Your task to perform on an android device: turn off javascript in the chrome app Image 0: 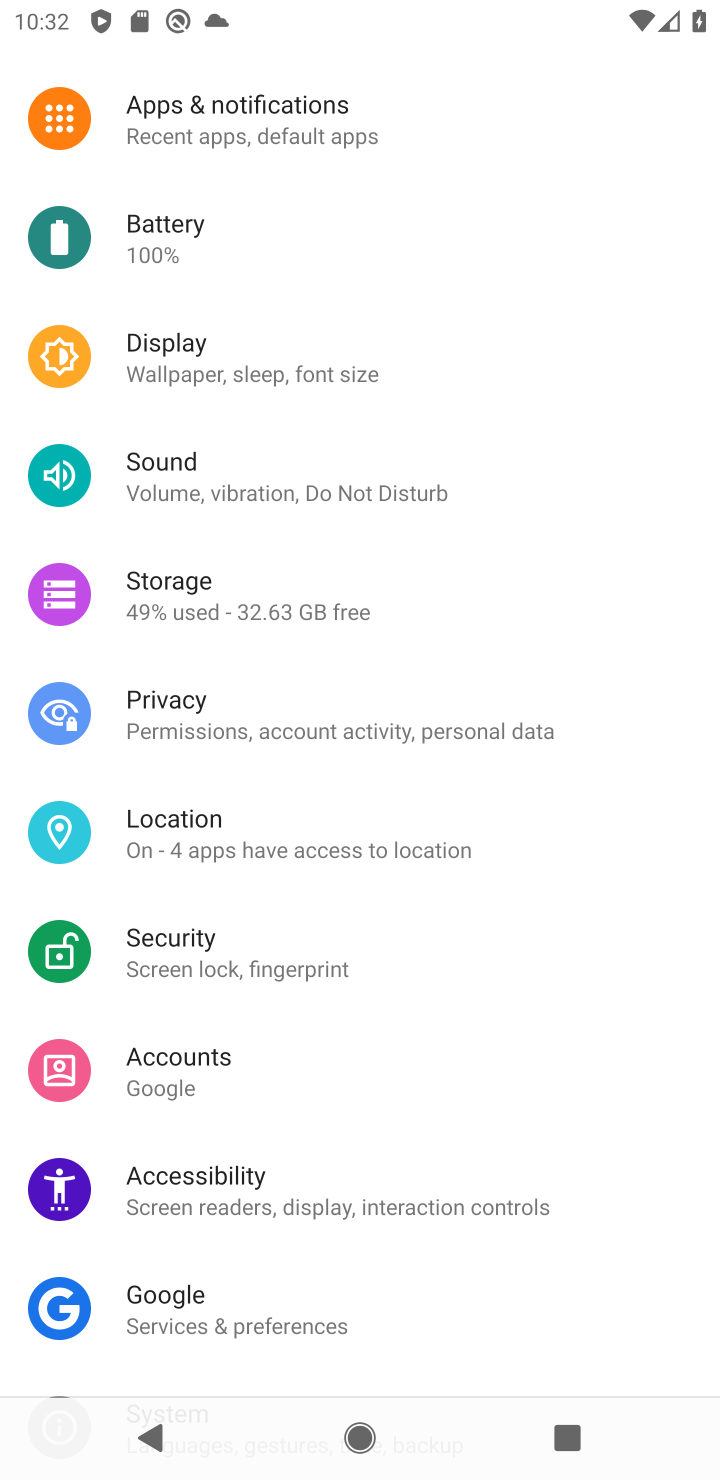
Step 0: press home button
Your task to perform on an android device: turn off javascript in the chrome app Image 1: 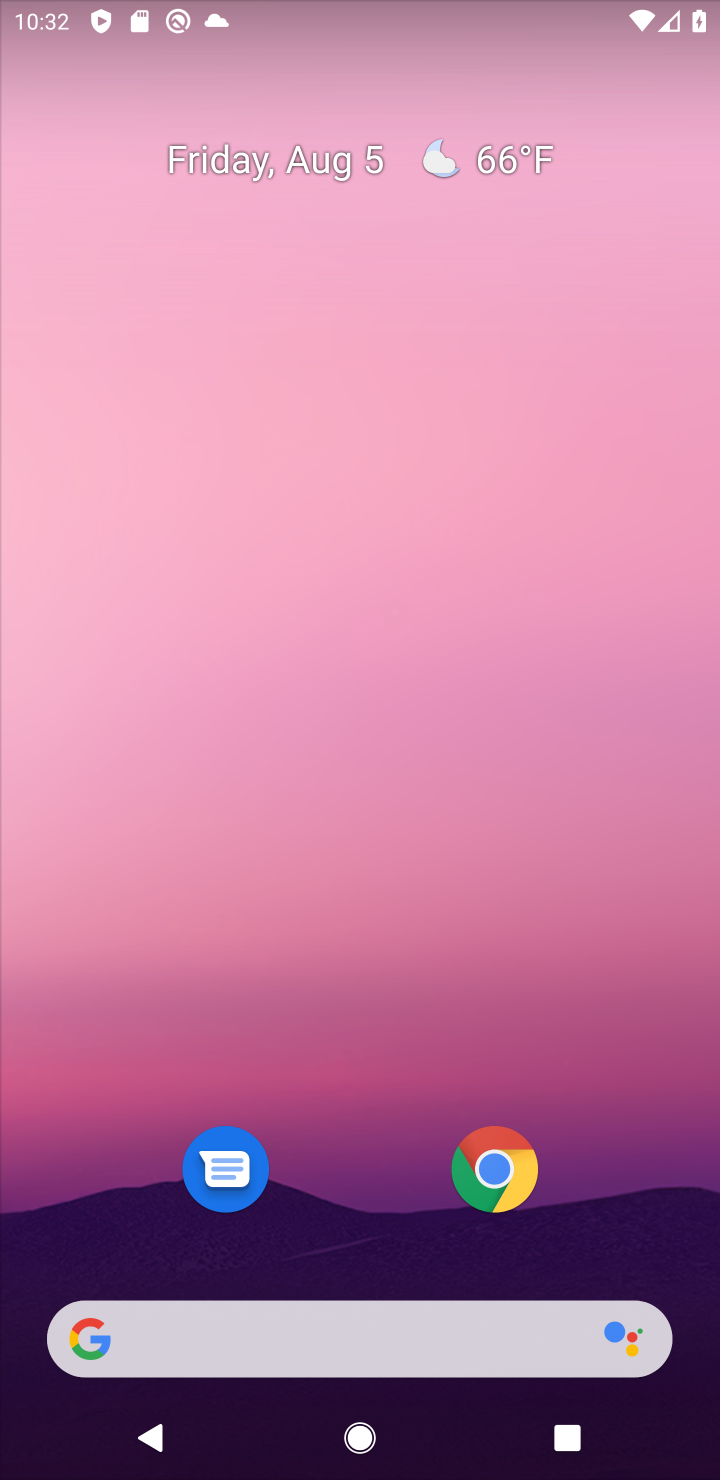
Step 1: click (499, 1172)
Your task to perform on an android device: turn off javascript in the chrome app Image 2: 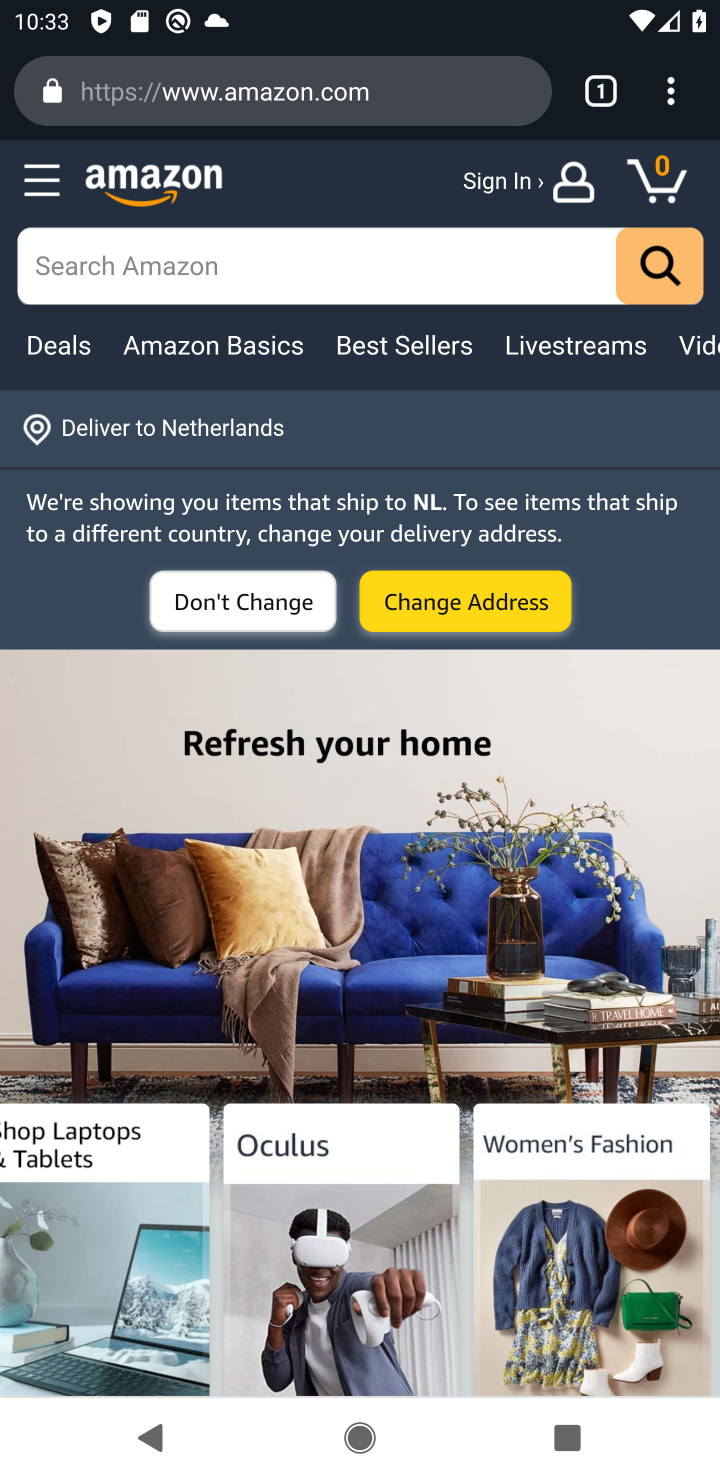
Step 2: click (666, 102)
Your task to perform on an android device: turn off javascript in the chrome app Image 3: 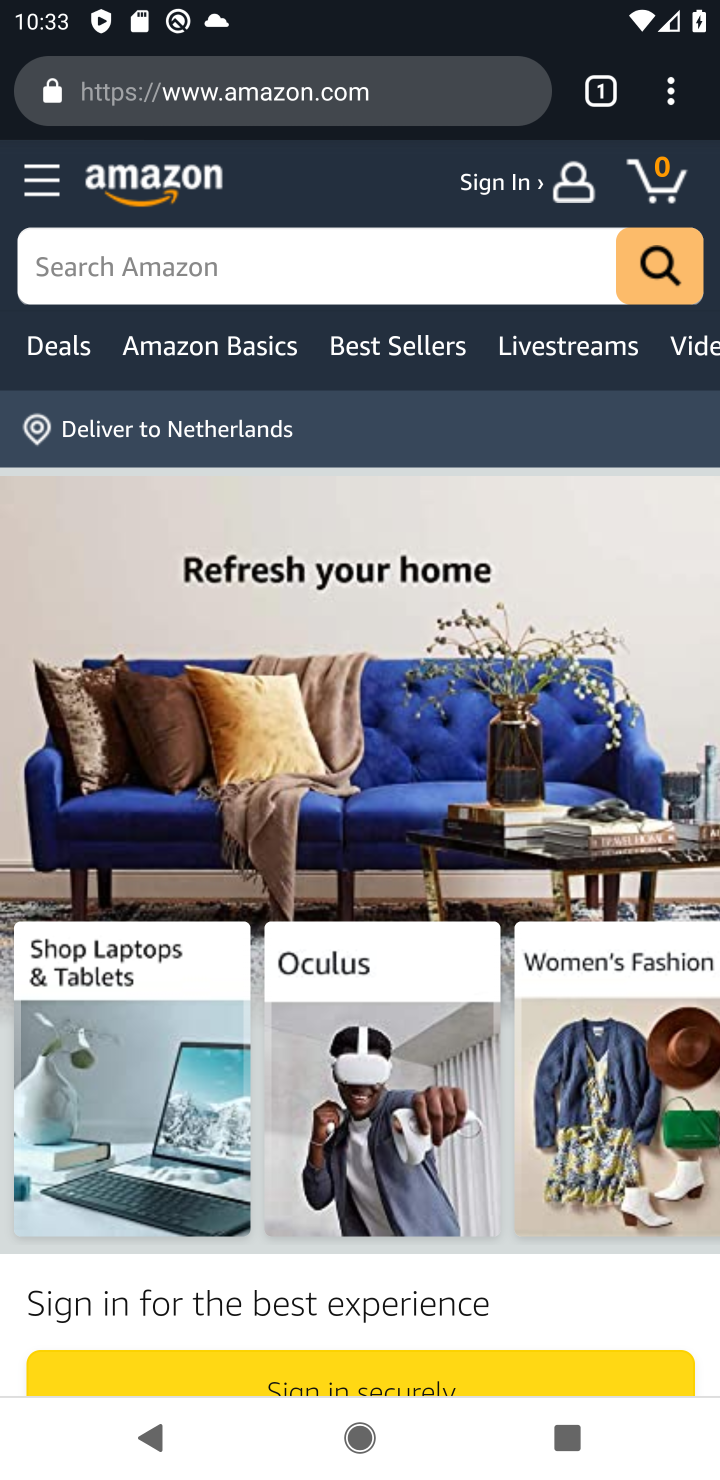
Step 3: click (661, 112)
Your task to perform on an android device: turn off javascript in the chrome app Image 4: 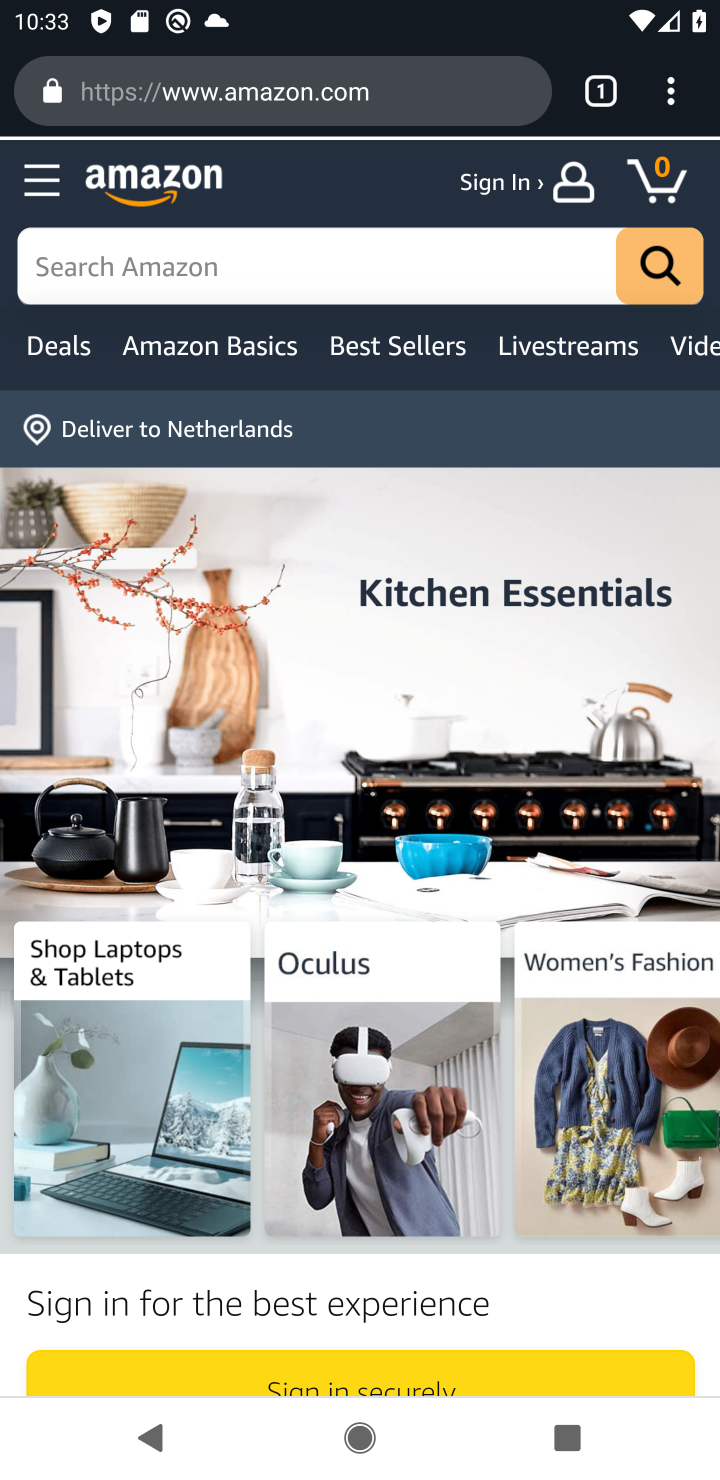
Step 4: task complete